Your task to perform on an android device: change alarm snooze length Image 0: 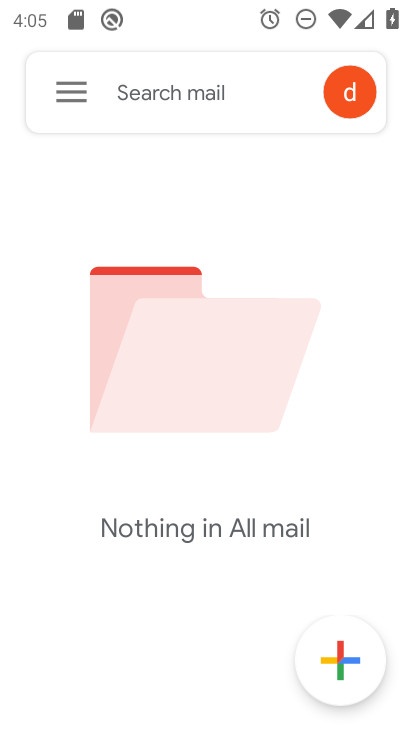
Step 0: press back button
Your task to perform on an android device: change alarm snooze length Image 1: 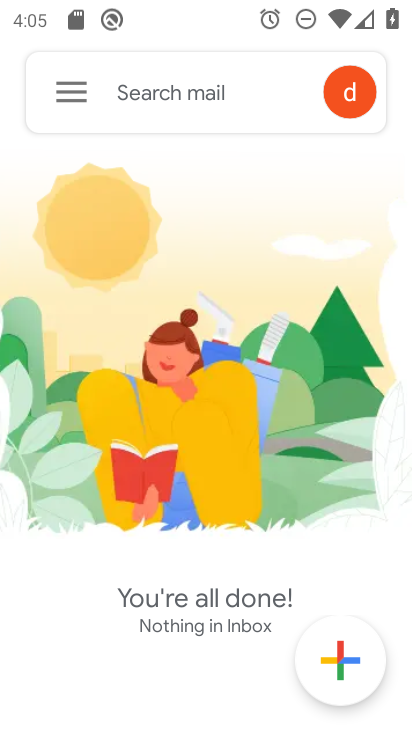
Step 1: press back button
Your task to perform on an android device: change alarm snooze length Image 2: 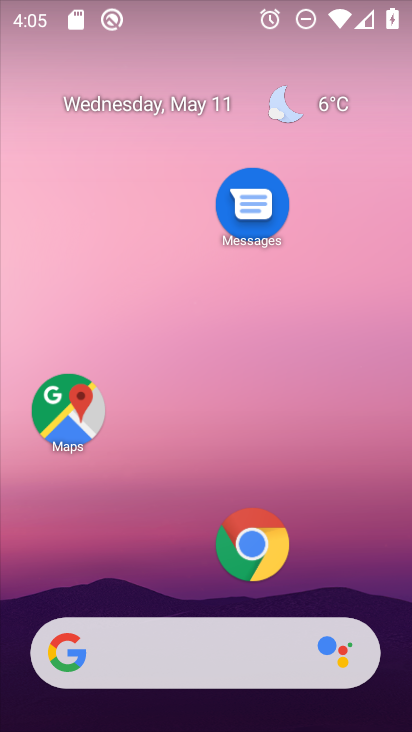
Step 2: drag from (118, 577) to (229, 24)
Your task to perform on an android device: change alarm snooze length Image 3: 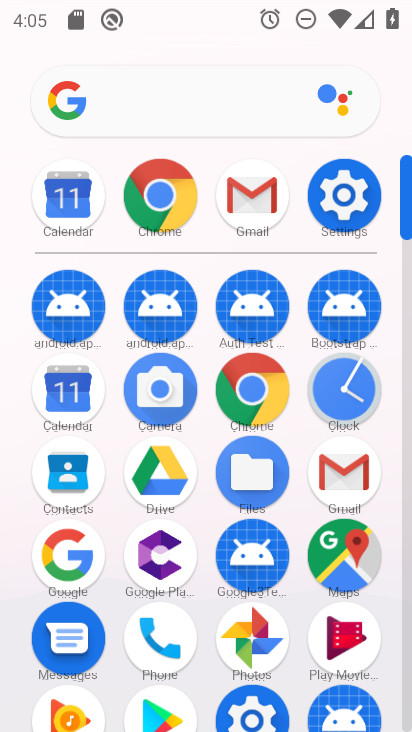
Step 3: click (351, 390)
Your task to perform on an android device: change alarm snooze length Image 4: 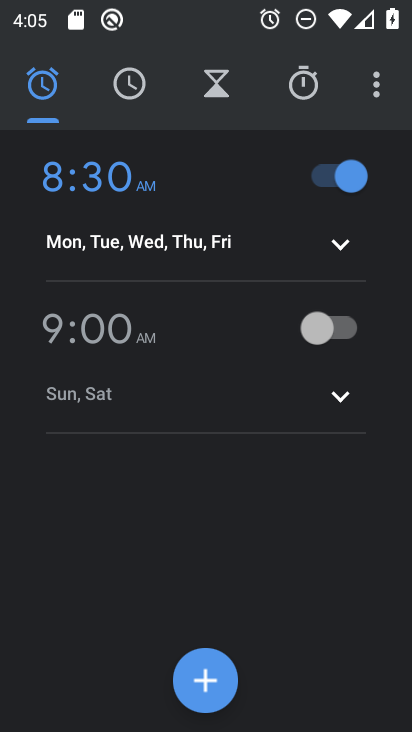
Step 4: drag from (370, 75) to (252, 330)
Your task to perform on an android device: change alarm snooze length Image 5: 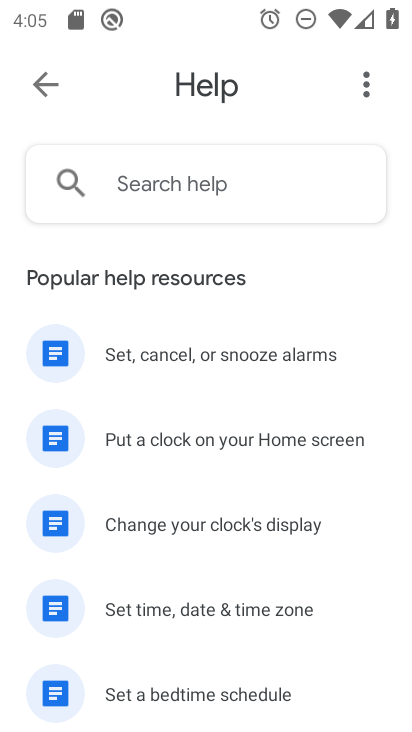
Step 5: press back button
Your task to perform on an android device: change alarm snooze length Image 6: 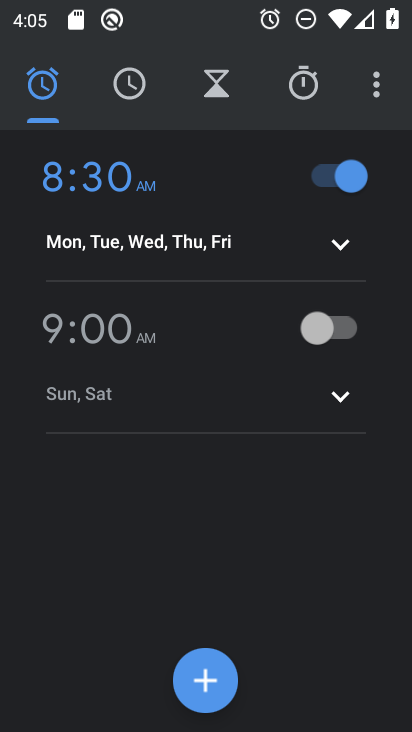
Step 6: click (366, 68)
Your task to perform on an android device: change alarm snooze length Image 7: 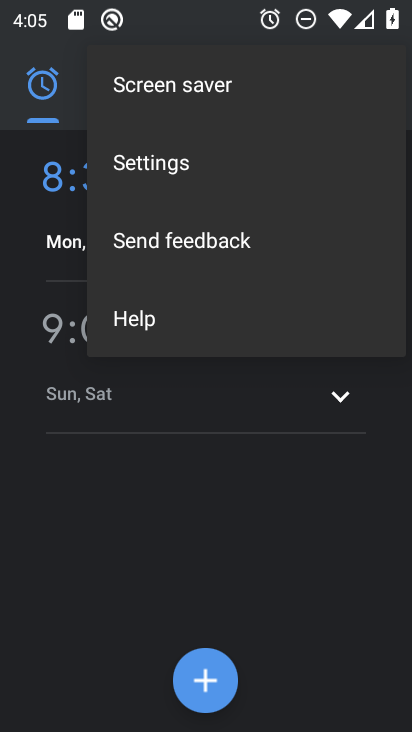
Step 7: click (163, 176)
Your task to perform on an android device: change alarm snooze length Image 8: 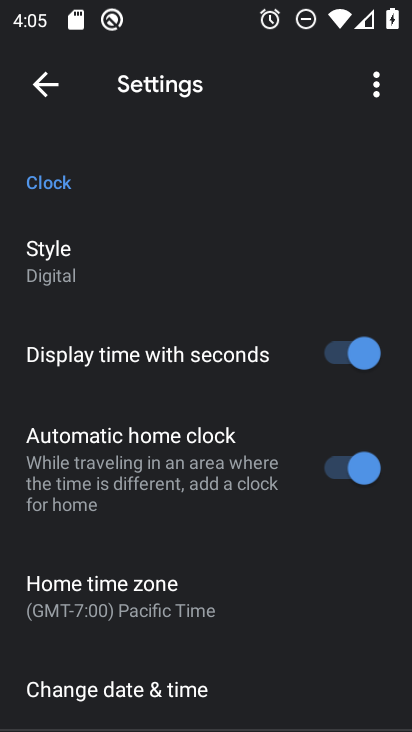
Step 8: drag from (130, 663) to (228, 284)
Your task to perform on an android device: change alarm snooze length Image 9: 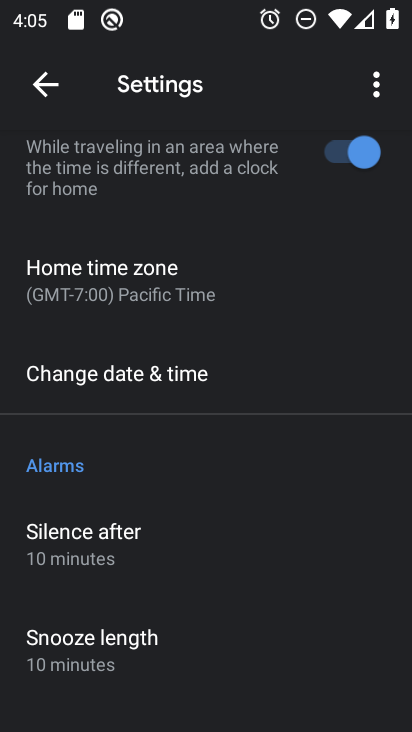
Step 9: click (170, 665)
Your task to perform on an android device: change alarm snooze length Image 10: 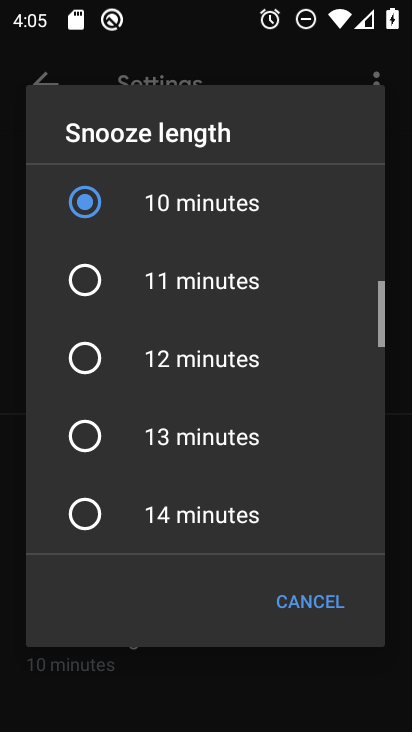
Step 10: click (85, 277)
Your task to perform on an android device: change alarm snooze length Image 11: 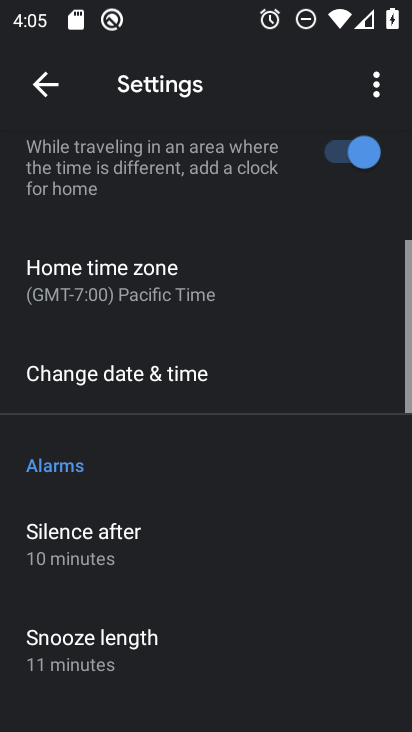
Step 11: task complete